Your task to perform on an android device: Search for Mexican restaurants on Maps Image 0: 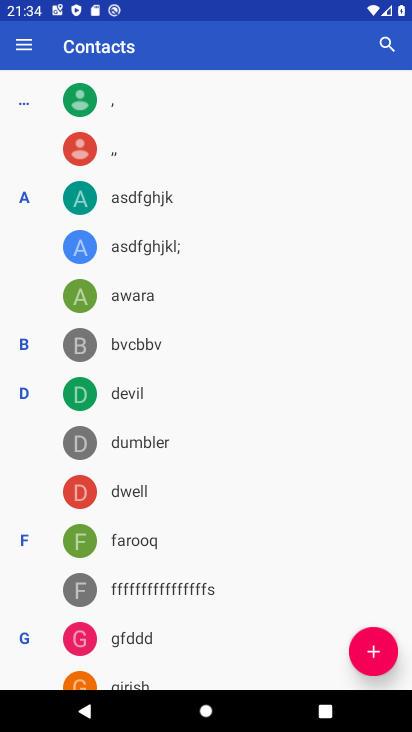
Step 0: press home button
Your task to perform on an android device: Search for Mexican restaurants on Maps Image 1: 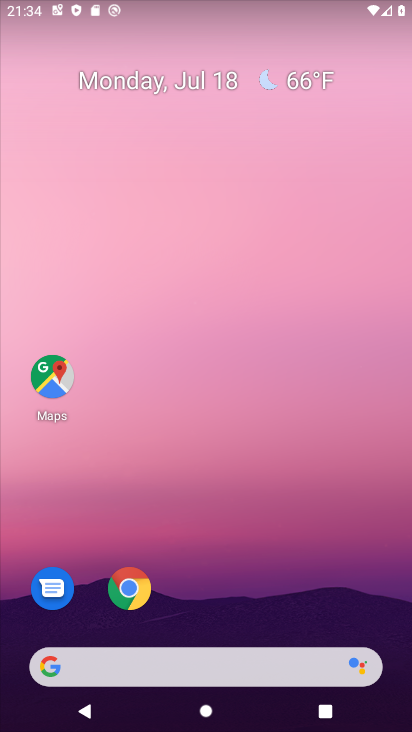
Step 1: click (51, 382)
Your task to perform on an android device: Search for Mexican restaurants on Maps Image 2: 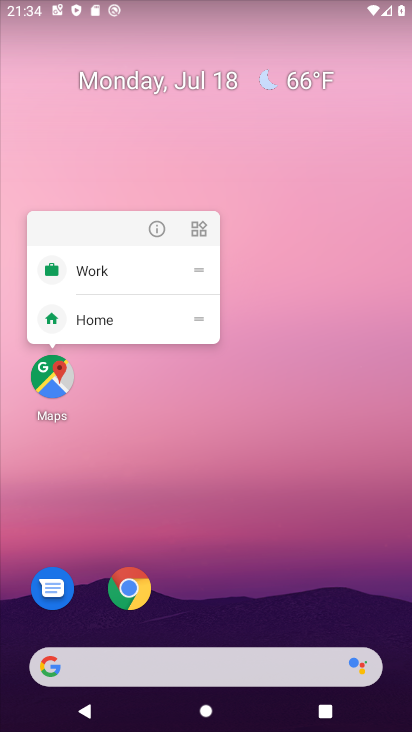
Step 2: click (49, 369)
Your task to perform on an android device: Search for Mexican restaurants on Maps Image 3: 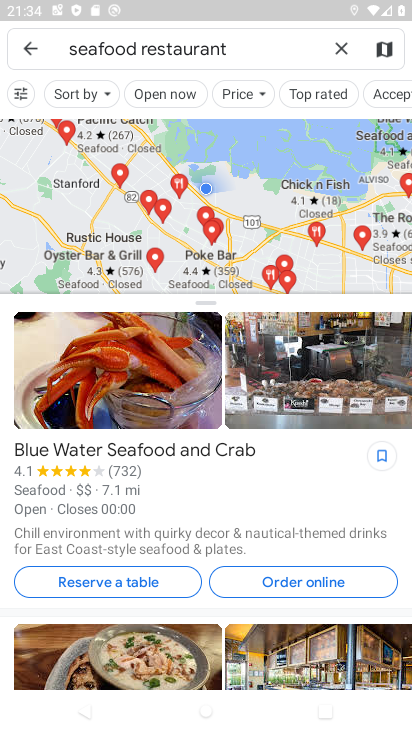
Step 3: click (338, 43)
Your task to perform on an android device: Search for Mexican restaurants on Maps Image 4: 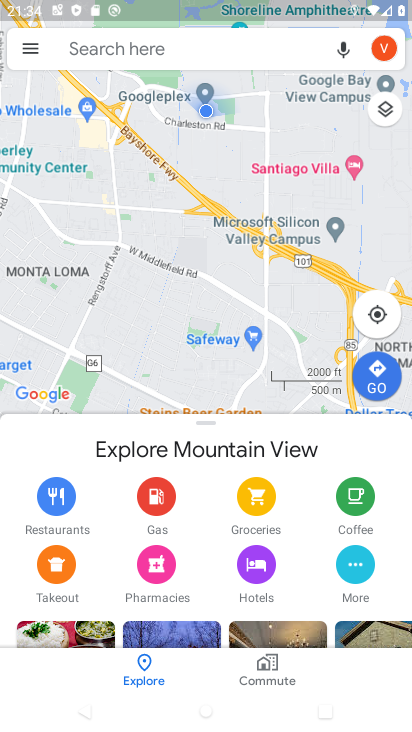
Step 4: click (210, 52)
Your task to perform on an android device: Search for Mexican restaurants on Maps Image 5: 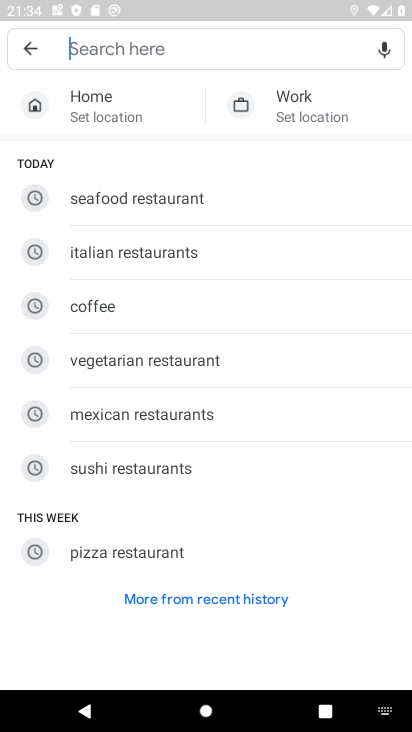
Step 5: click (129, 415)
Your task to perform on an android device: Search for Mexican restaurants on Maps Image 6: 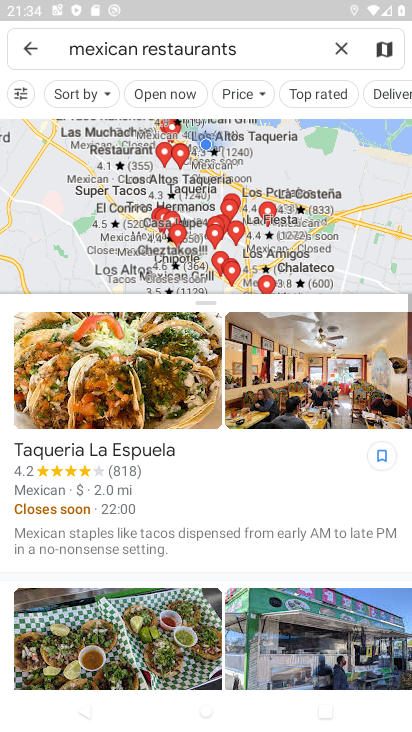
Step 6: task complete